Your task to perform on an android device: Go to ESPN.com Image 0: 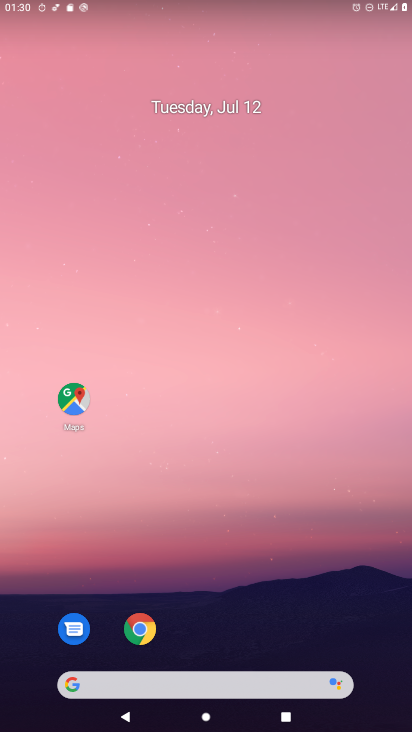
Step 0: click (98, 683)
Your task to perform on an android device: Go to ESPN.com Image 1: 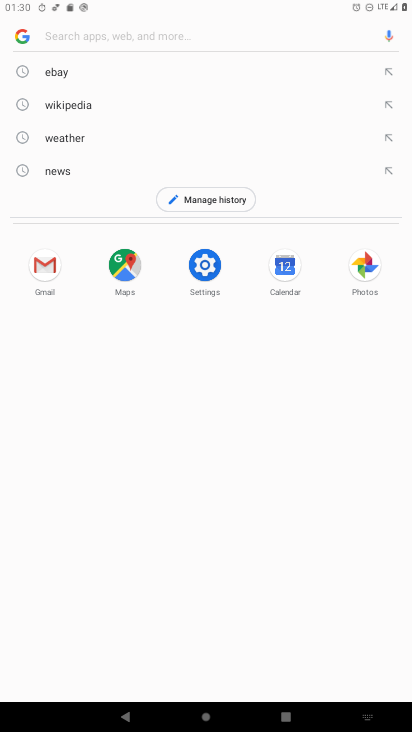
Step 1: click (64, 31)
Your task to perform on an android device: Go to ESPN.com Image 2: 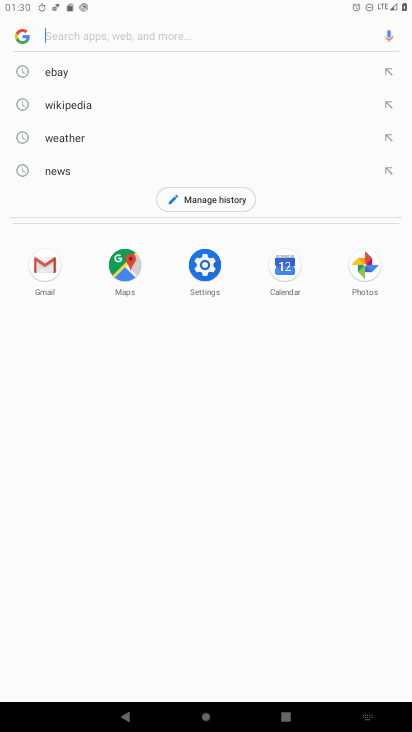
Step 2: type "ESPN.com"
Your task to perform on an android device: Go to ESPN.com Image 3: 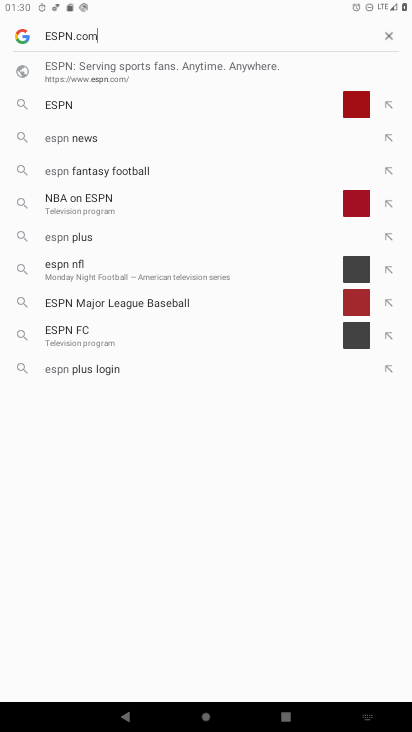
Step 3: type ""
Your task to perform on an android device: Go to ESPN.com Image 4: 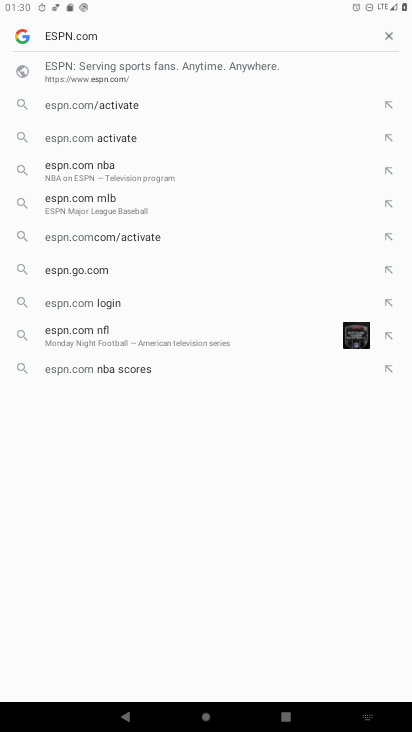
Step 4: click (146, 68)
Your task to perform on an android device: Go to ESPN.com Image 5: 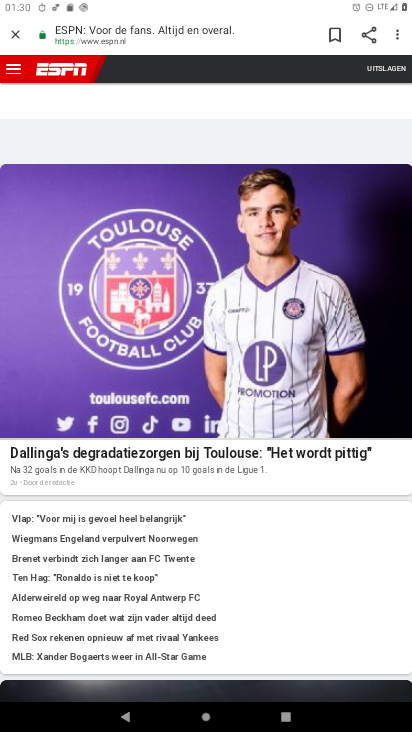
Step 5: task complete